Your task to perform on an android device: visit the assistant section in the google photos Image 0: 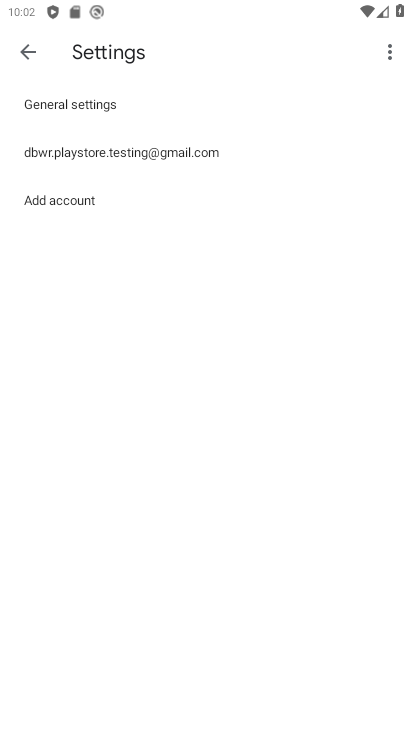
Step 0: press home button
Your task to perform on an android device: visit the assistant section in the google photos Image 1: 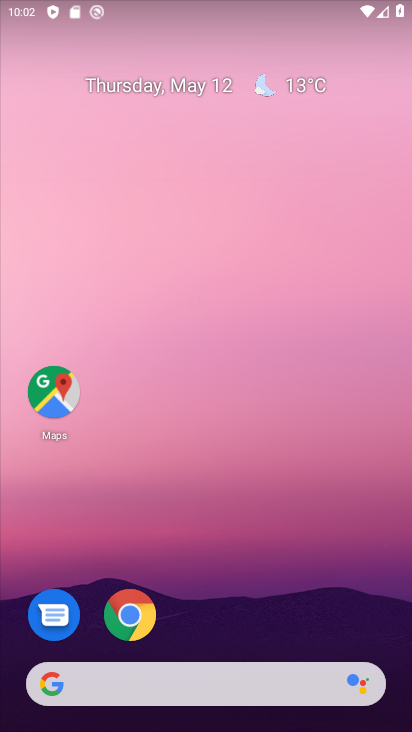
Step 1: drag from (322, 588) to (350, 53)
Your task to perform on an android device: visit the assistant section in the google photos Image 2: 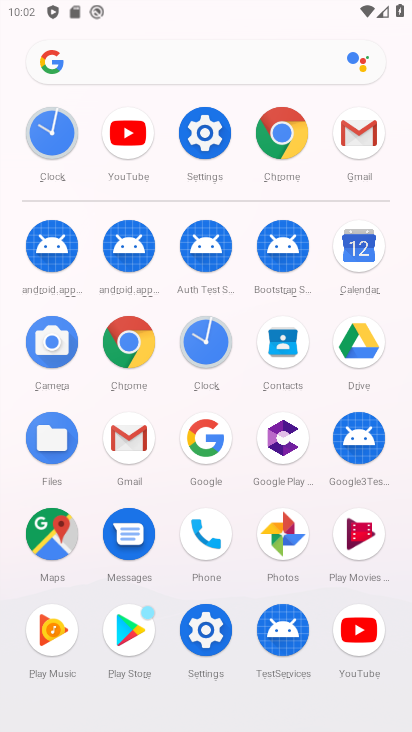
Step 2: click (294, 539)
Your task to perform on an android device: visit the assistant section in the google photos Image 3: 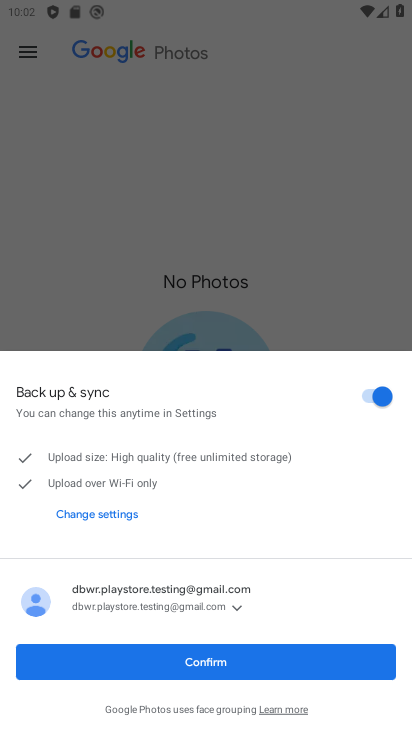
Step 3: click (206, 662)
Your task to perform on an android device: visit the assistant section in the google photos Image 4: 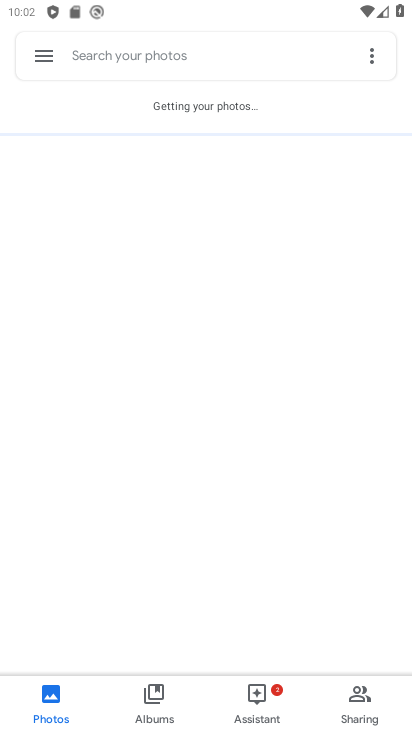
Step 4: click (252, 704)
Your task to perform on an android device: visit the assistant section in the google photos Image 5: 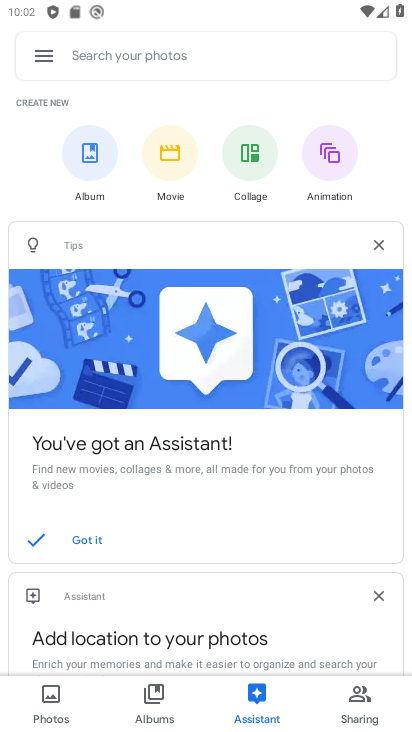
Step 5: task complete